Your task to perform on an android device: snooze an email in the gmail app Image 0: 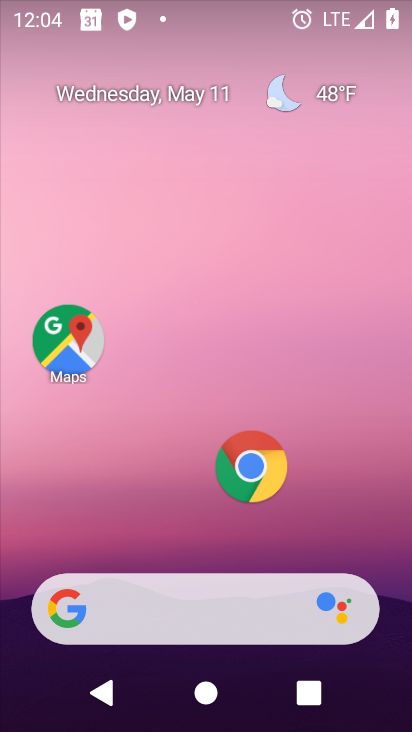
Step 0: drag from (143, 507) to (237, 63)
Your task to perform on an android device: snooze an email in the gmail app Image 1: 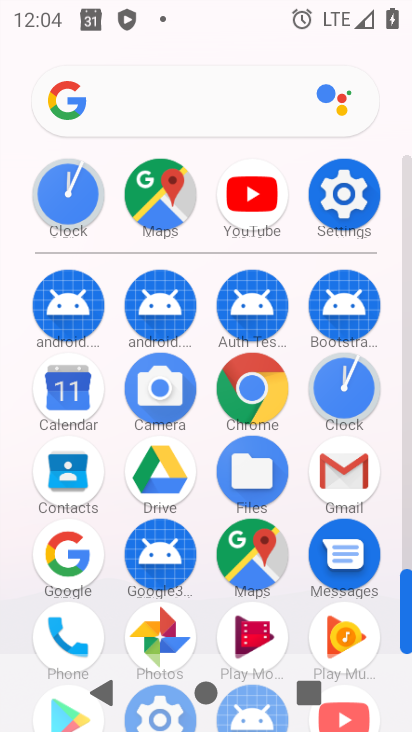
Step 1: click (337, 461)
Your task to perform on an android device: snooze an email in the gmail app Image 2: 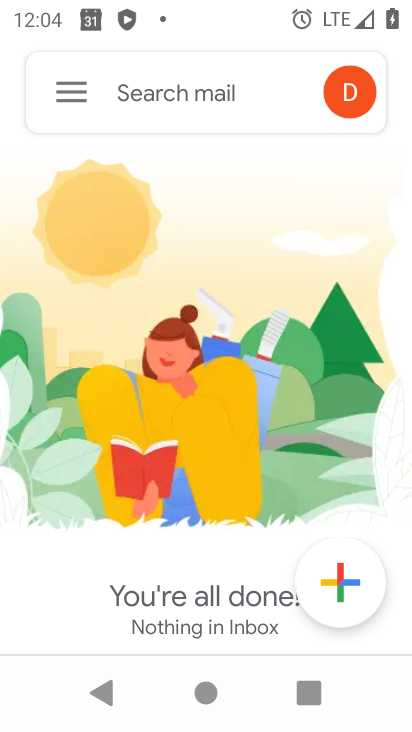
Step 2: click (71, 87)
Your task to perform on an android device: snooze an email in the gmail app Image 3: 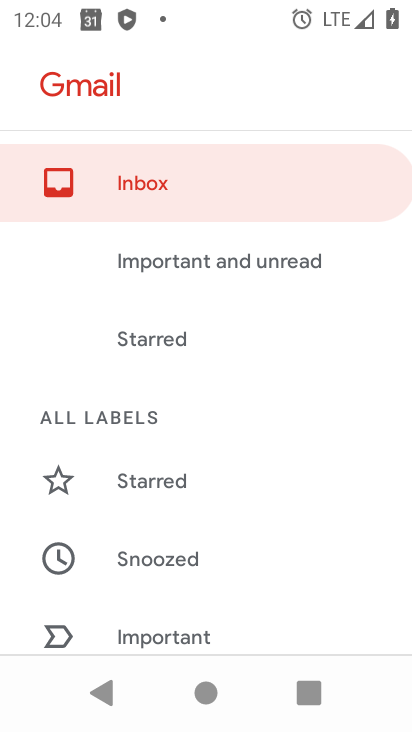
Step 3: drag from (175, 581) to (252, 114)
Your task to perform on an android device: snooze an email in the gmail app Image 4: 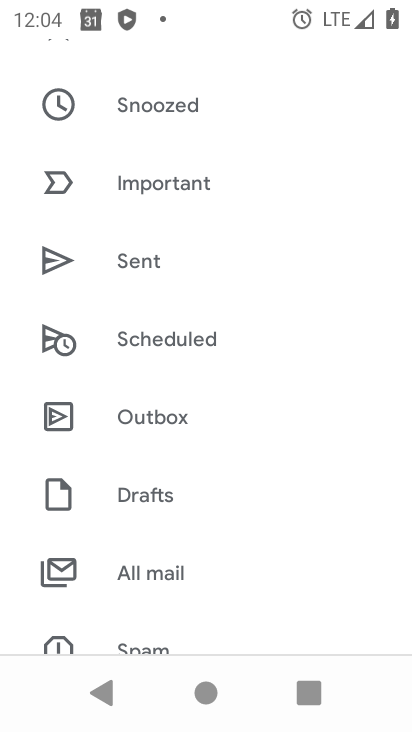
Step 4: click (150, 570)
Your task to perform on an android device: snooze an email in the gmail app Image 5: 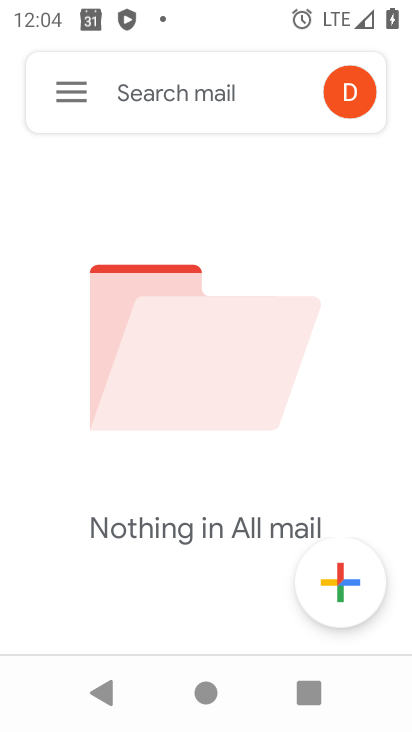
Step 5: click (75, 86)
Your task to perform on an android device: snooze an email in the gmail app Image 6: 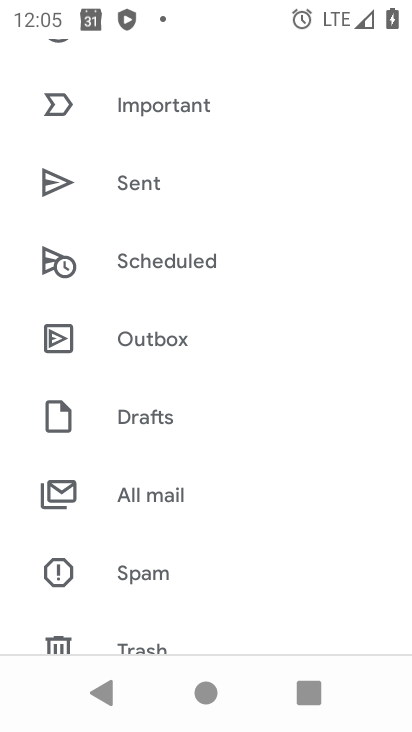
Step 6: click (152, 496)
Your task to perform on an android device: snooze an email in the gmail app Image 7: 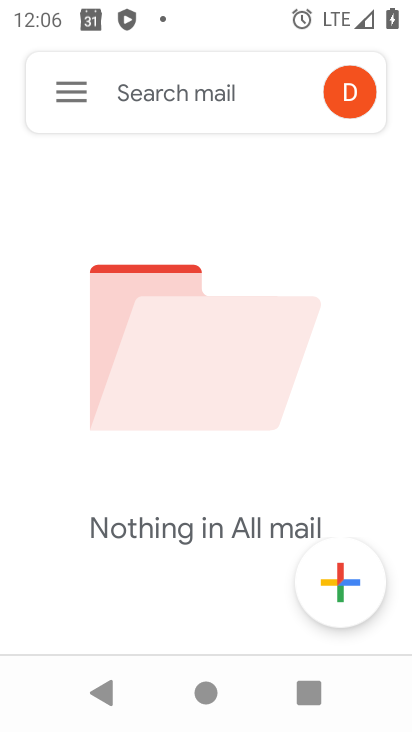
Step 7: task complete